Your task to perform on an android device: turn on wifi Image 0: 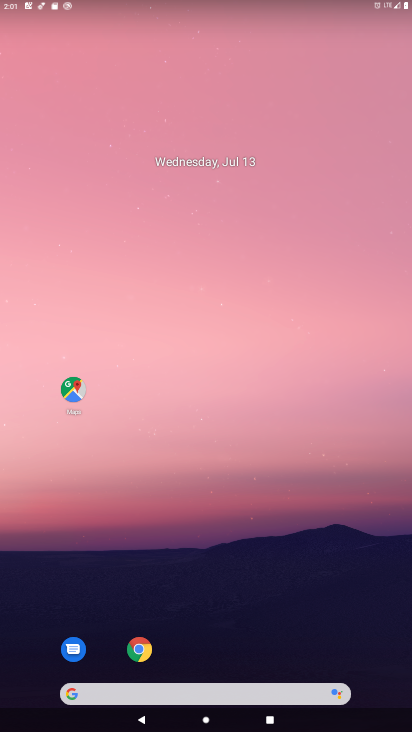
Step 0: press home button
Your task to perform on an android device: turn on wifi Image 1: 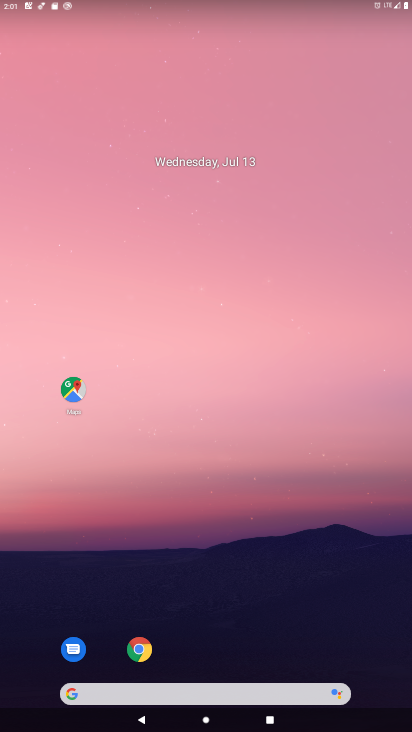
Step 1: drag from (309, 665) to (271, 83)
Your task to perform on an android device: turn on wifi Image 2: 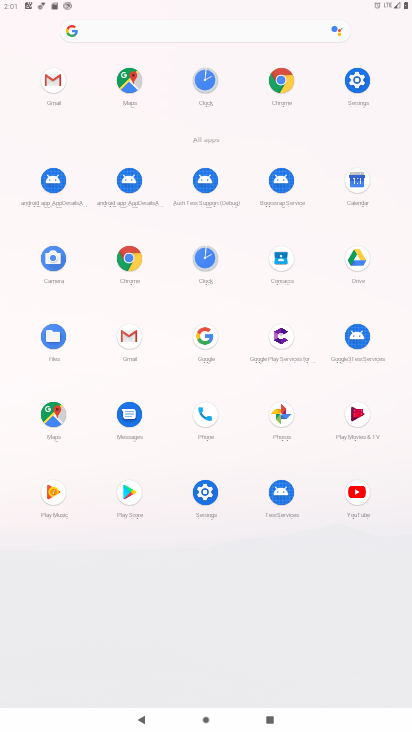
Step 2: drag from (202, 15) to (67, 706)
Your task to perform on an android device: turn on wifi Image 3: 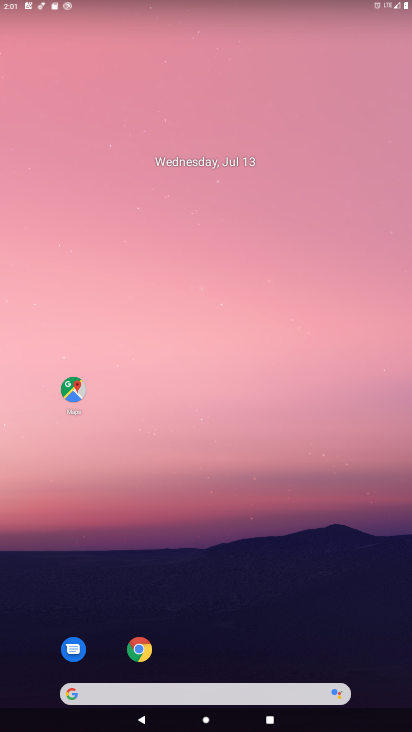
Step 3: drag from (166, 2) to (0, 537)
Your task to perform on an android device: turn on wifi Image 4: 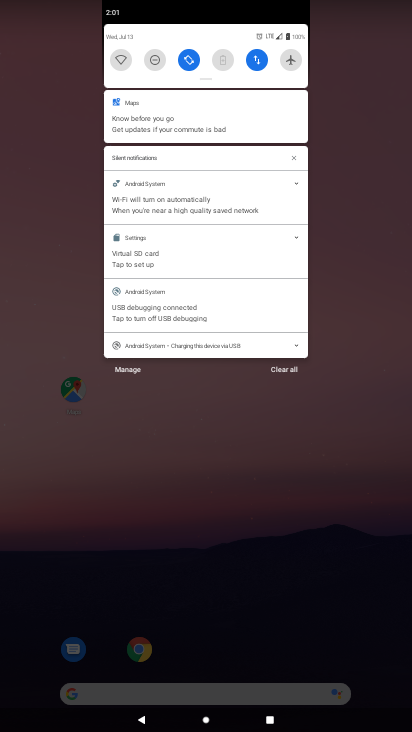
Step 4: click (118, 58)
Your task to perform on an android device: turn on wifi Image 5: 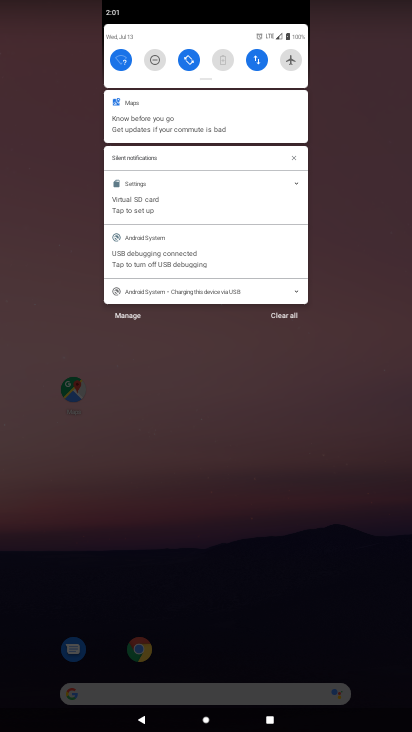
Step 5: task complete